Your task to perform on an android device: change the clock display to analog Image 0: 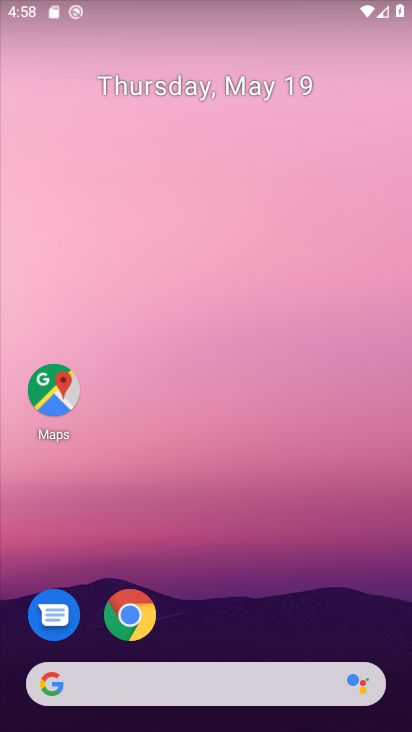
Step 0: drag from (253, 653) to (286, 8)
Your task to perform on an android device: change the clock display to analog Image 1: 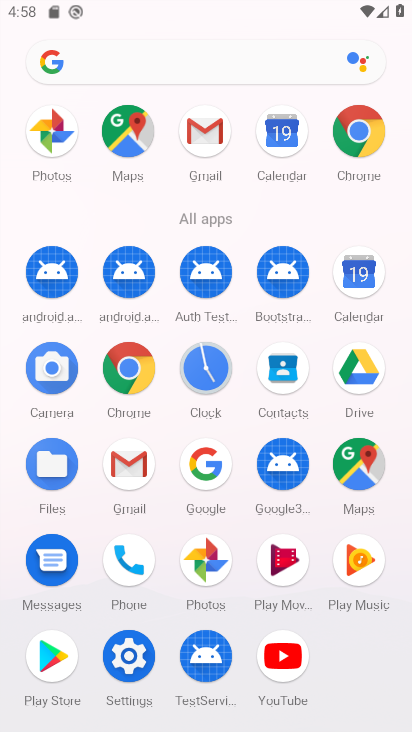
Step 1: click (215, 381)
Your task to perform on an android device: change the clock display to analog Image 2: 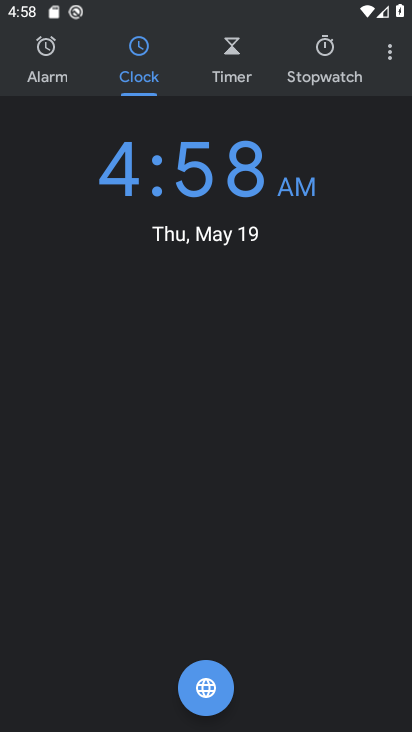
Step 2: click (398, 66)
Your task to perform on an android device: change the clock display to analog Image 3: 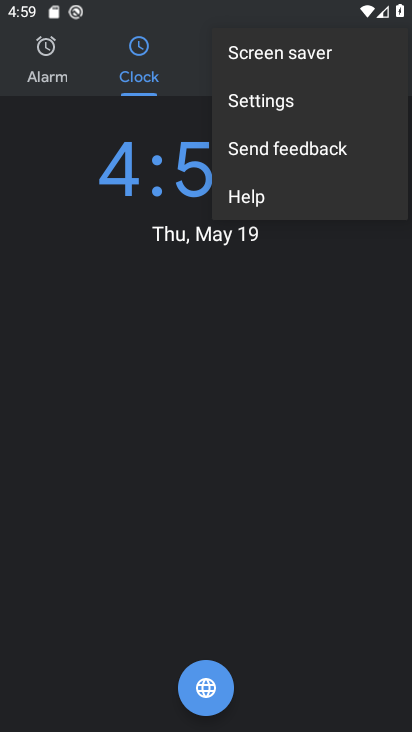
Step 3: click (302, 106)
Your task to perform on an android device: change the clock display to analog Image 4: 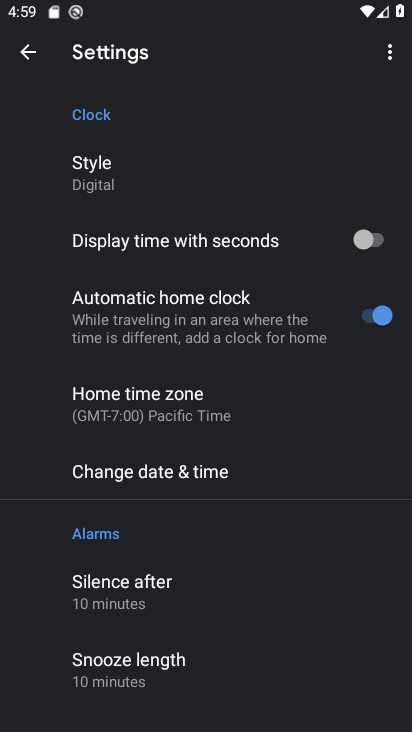
Step 4: click (149, 176)
Your task to perform on an android device: change the clock display to analog Image 5: 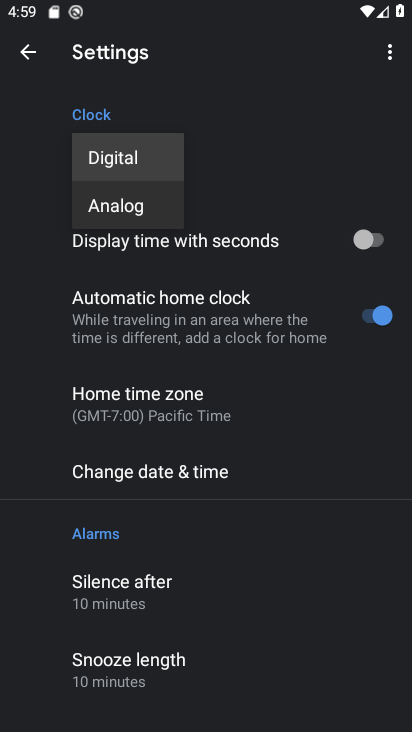
Step 5: click (146, 204)
Your task to perform on an android device: change the clock display to analog Image 6: 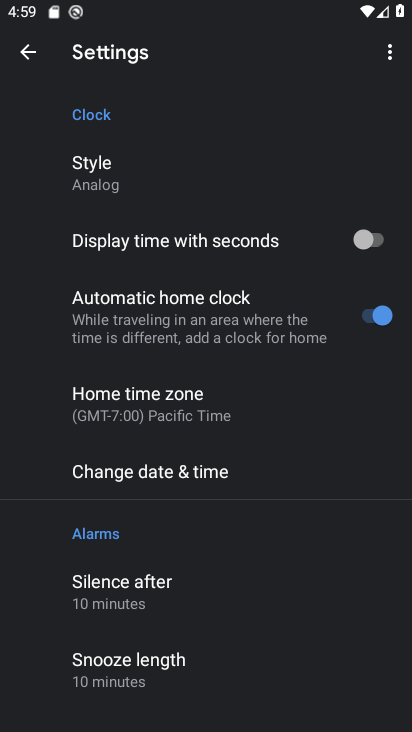
Step 6: task complete